Your task to perform on an android device: Set the phone to "Do not disturb". Image 0: 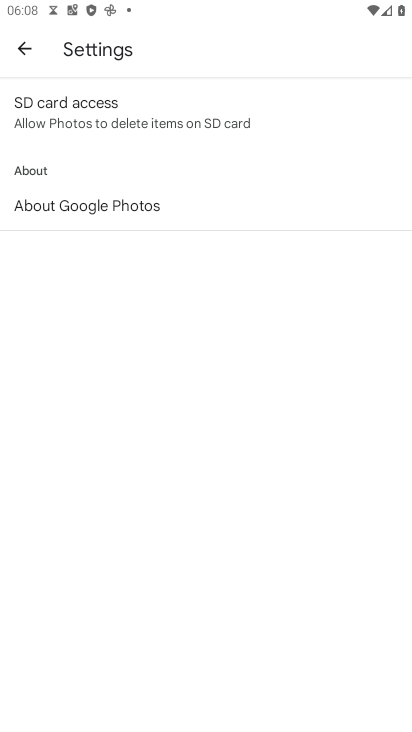
Step 0: press home button
Your task to perform on an android device: Set the phone to "Do not disturb". Image 1: 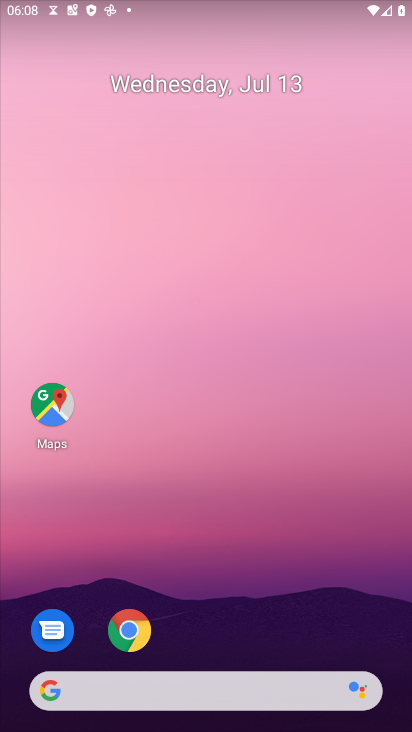
Step 1: drag from (239, 694) to (325, 9)
Your task to perform on an android device: Set the phone to "Do not disturb". Image 2: 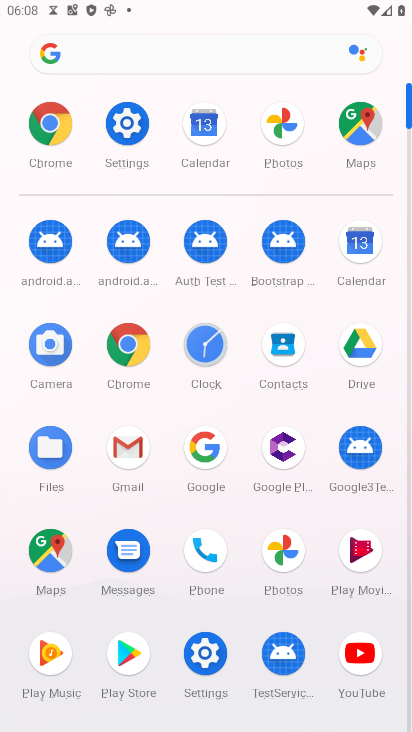
Step 2: click (136, 108)
Your task to perform on an android device: Set the phone to "Do not disturb". Image 3: 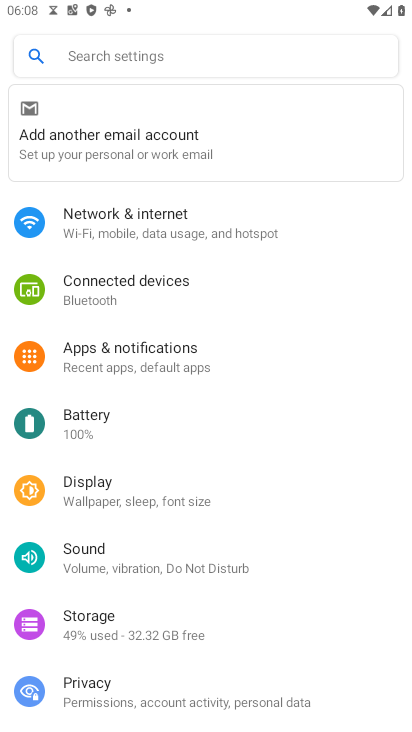
Step 3: click (121, 563)
Your task to perform on an android device: Set the phone to "Do not disturb". Image 4: 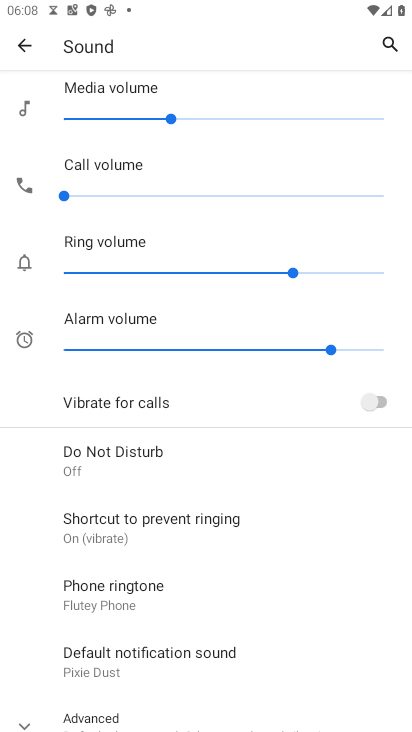
Step 4: click (165, 462)
Your task to perform on an android device: Set the phone to "Do not disturb". Image 5: 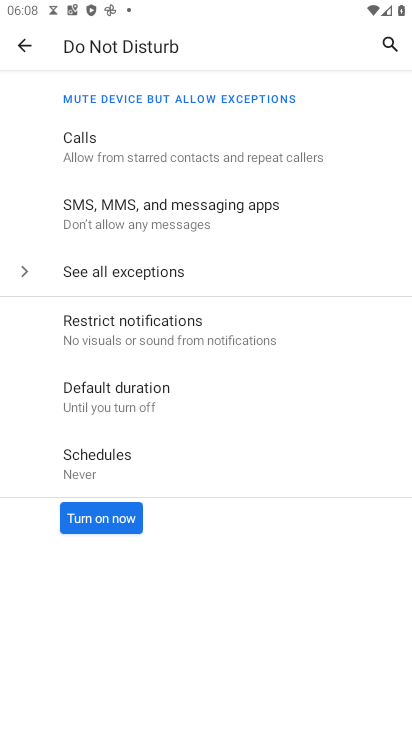
Step 5: click (112, 513)
Your task to perform on an android device: Set the phone to "Do not disturb". Image 6: 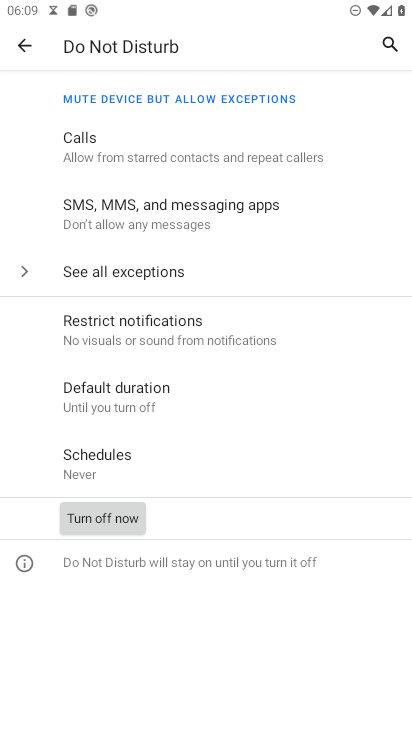
Step 6: task complete